Your task to perform on an android device: toggle location history Image 0: 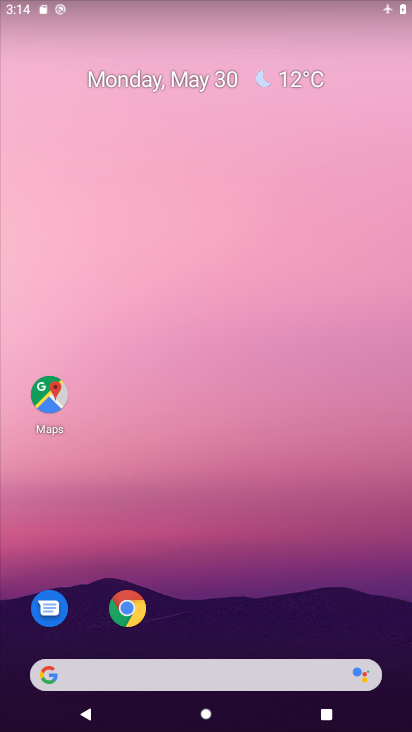
Step 0: press home button
Your task to perform on an android device: toggle location history Image 1: 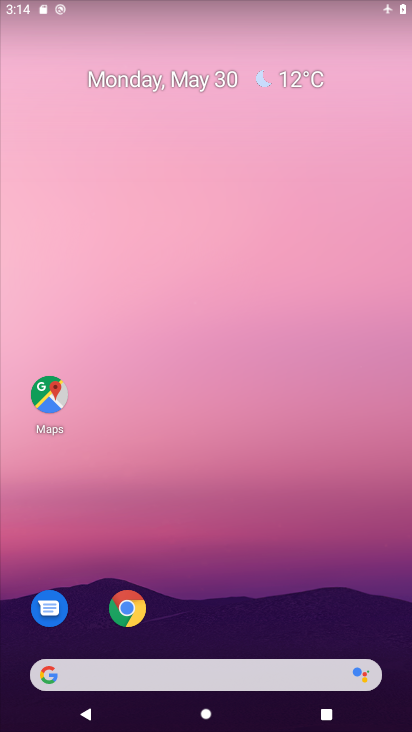
Step 1: drag from (299, 389) to (202, 29)
Your task to perform on an android device: toggle location history Image 2: 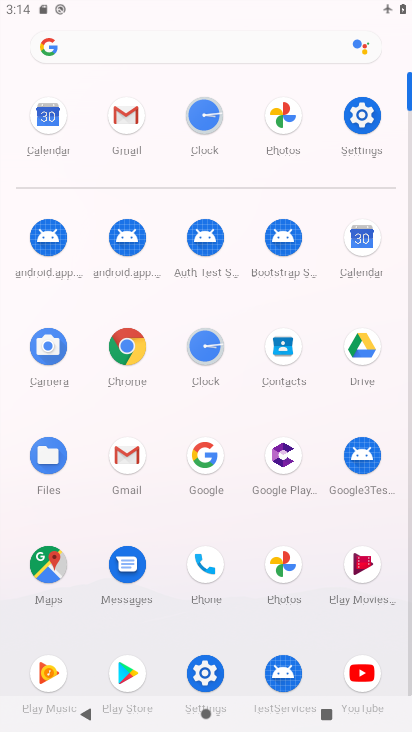
Step 2: click (349, 123)
Your task to perform on an android device: toggle location history Image 3: 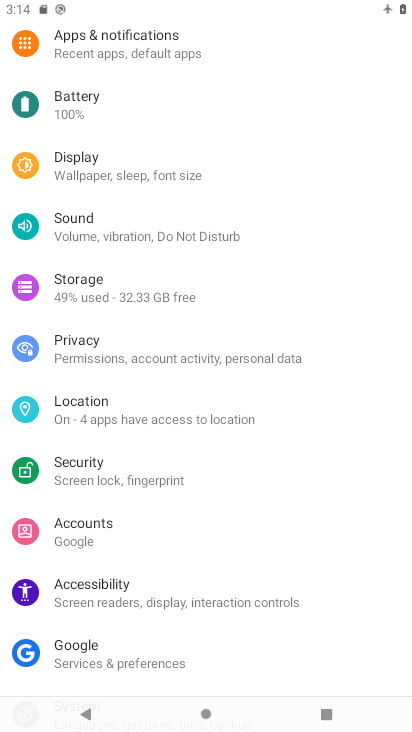
Step 3: click (184, 411)
Your task to perform on an android device: toggle location history Image 4: 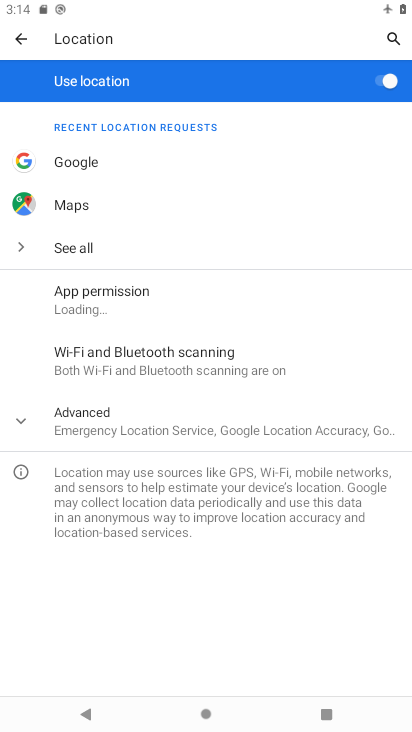
Step 4: click (201, 417)
Your task to perform on an android device: toggle location history Image 5: 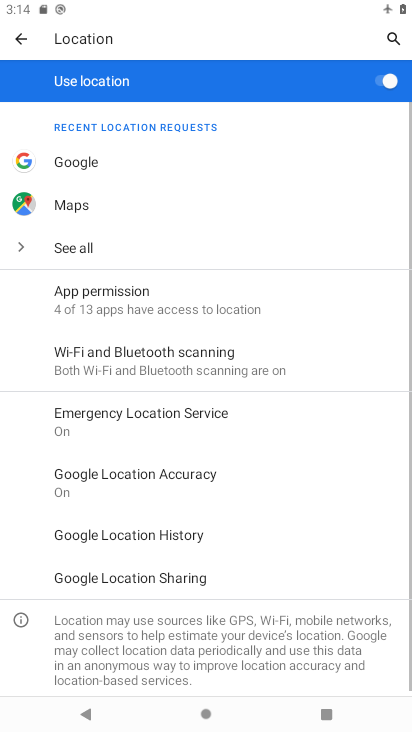
Step 5: click (231, 530)
Your task to perform on an android device: toggle location history Image 6: 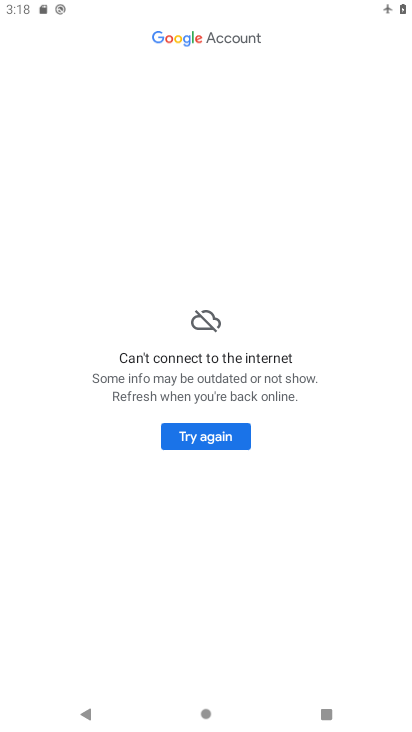
Step 6: task complete